Your task to perform on an android device: check storage Image 0: 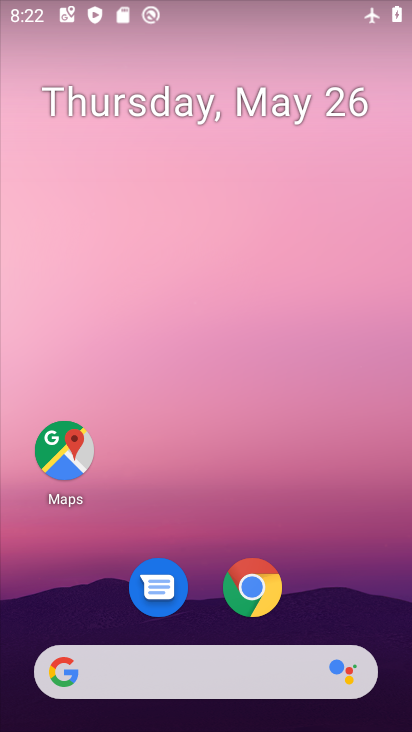
Step 0: drag from (194, 608) to (195, 292)
Your task to perform on an android device: check storage Image 1: 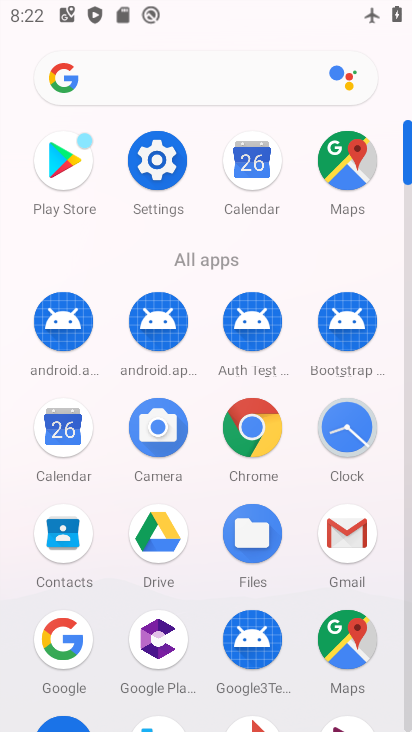
Step 1: click (151, 129)
Your task to perform on an android device: check storage Image 2: 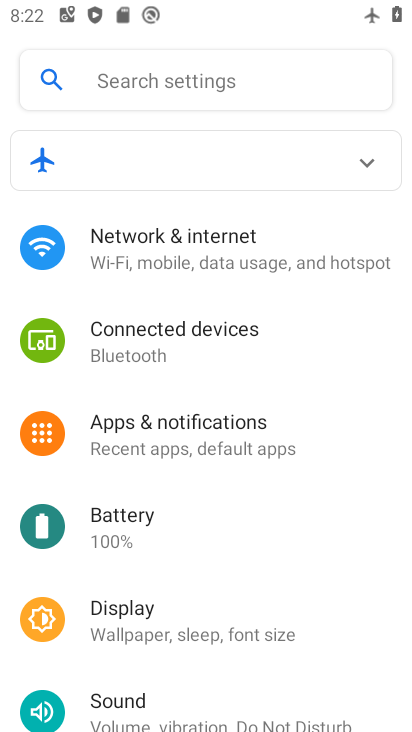
Step 2: drag from (249, 568) to (271, 300)
Your task to perform on an android device: check storage Image 3: 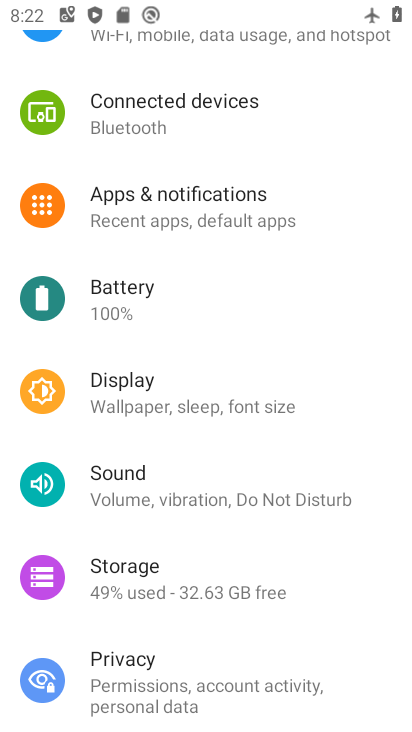
Step 3: click (188, 598)
Your task to perform on an android device: check storage Image 4: 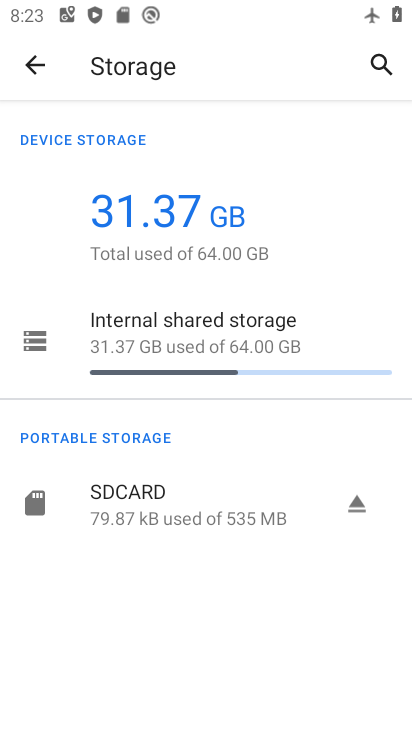
Step 4: task complete